Your task to perform on an android device: turn off sleep mode Image 0: 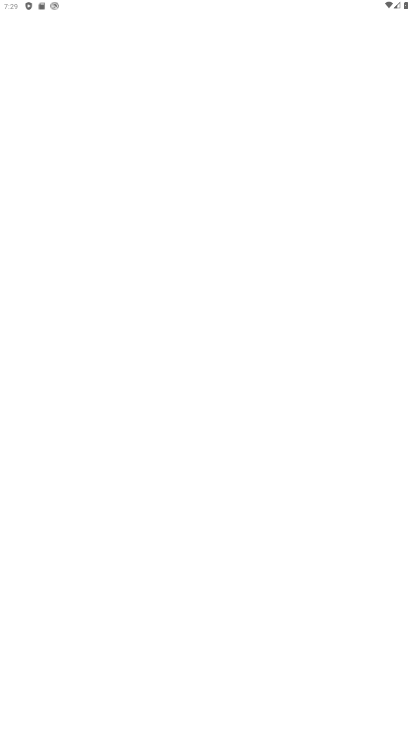
Step 0: press home button
Your task to perform on an android device: turn off sleep mode Image 1: 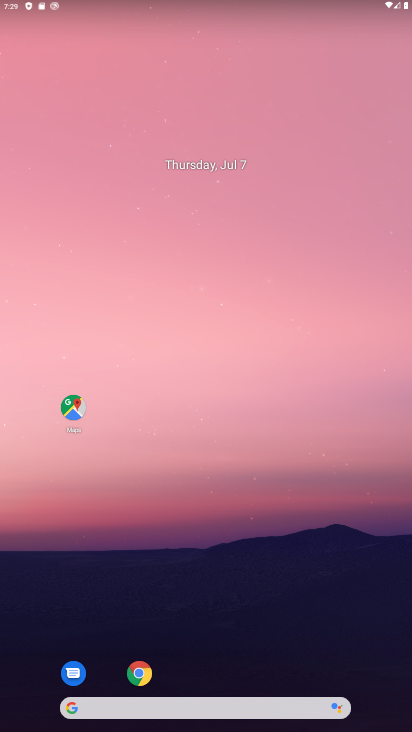
Step 1: drag from (164, 704) to (348, 67)
Your task to perform on an android device: turn off sleep mode Image 2: 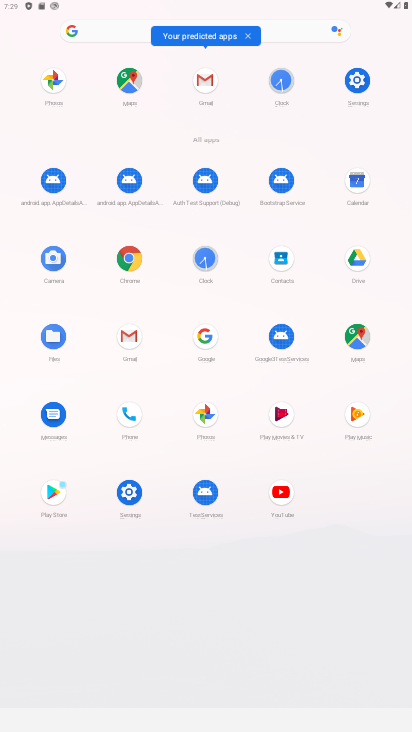
Step 2: click (358, 70)
Your task to perform on an android device: turn off sleep mode Image 3: 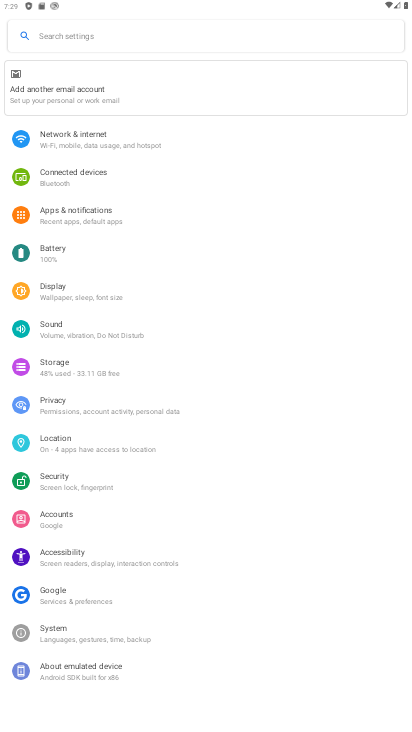
Step 3: click (79, 296)
Your task to perform on an android device: turn off sleep mode Image 4: 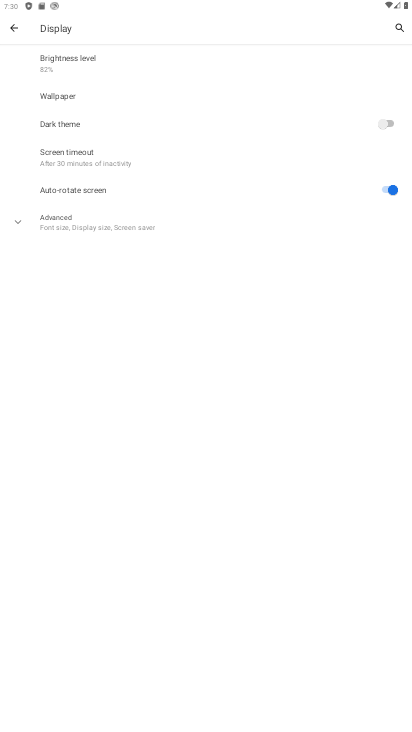
Step 4: click (63, 213)
Your task to perform on an android device: turn off sleep mode Image 5: 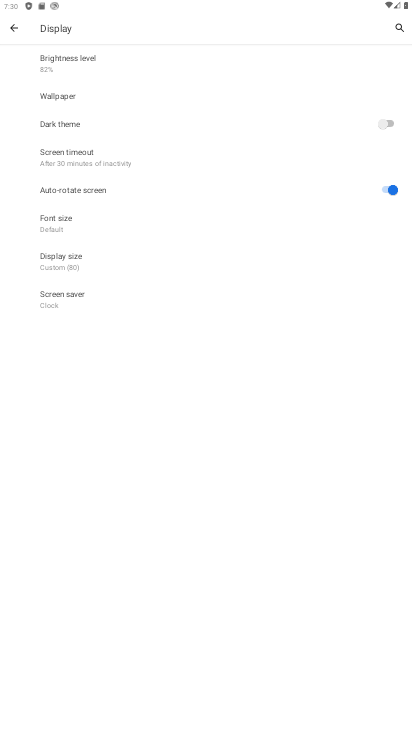
Step 5: task complete